Your task to perform on an android device: Do I have any events tomorrow? Image 0: 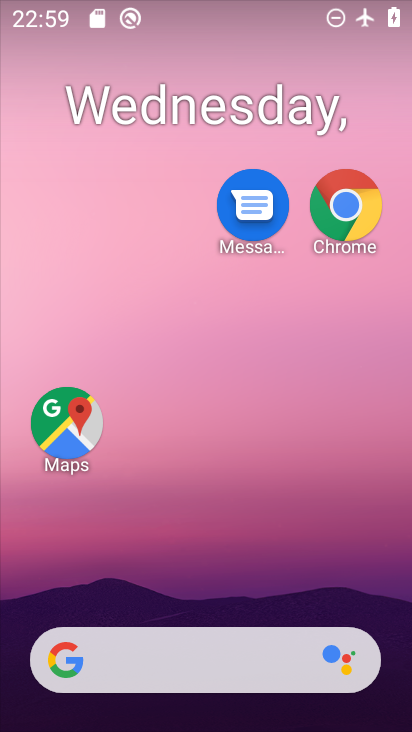
Step 0: drag from (230, 424) to (332, 98)
Your task to perform on an android device: Do I have any events tomorrow? Image 1: 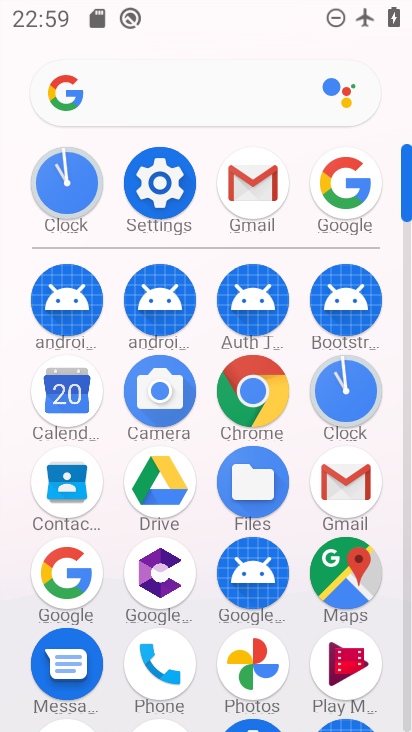
Step 1: click (69, 392)
Your task to perform on an android device: Do I have any events tomorrow? Image 2: 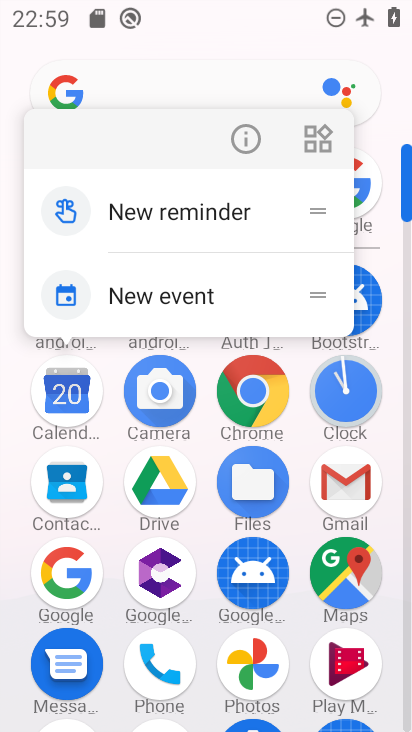
Step 2: click (239, 129)
Your task to perform on an android device: Do I have any events tomorrow? Image 3: 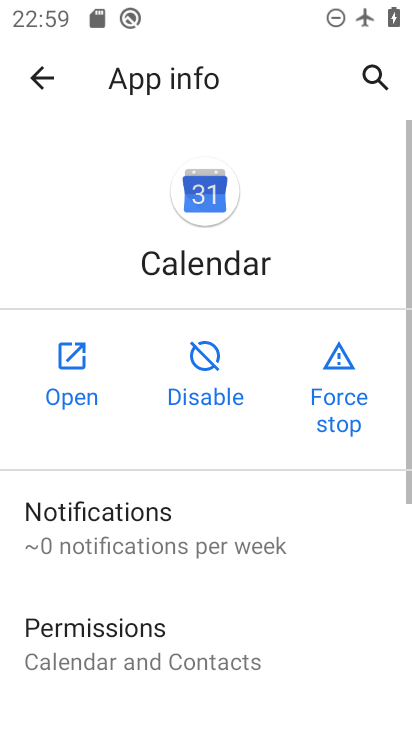
Step 3: click (50, 362)
Your task to perform on an android device: Do I have any events tomorrow? Image 4: 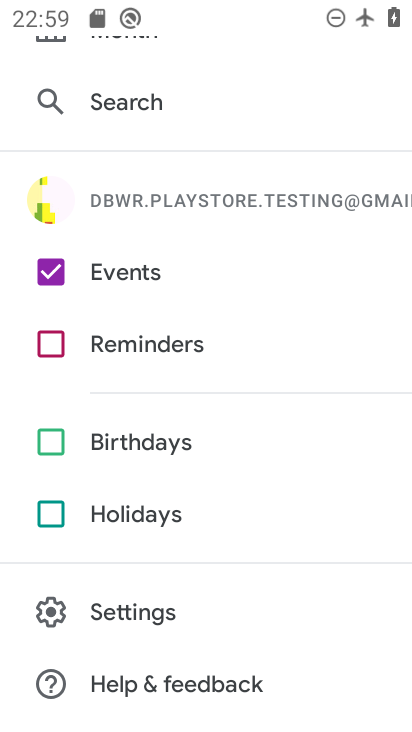
Step 4: task complete